Your task to perform on an android device: set default search engine in the chrome app Image 0: 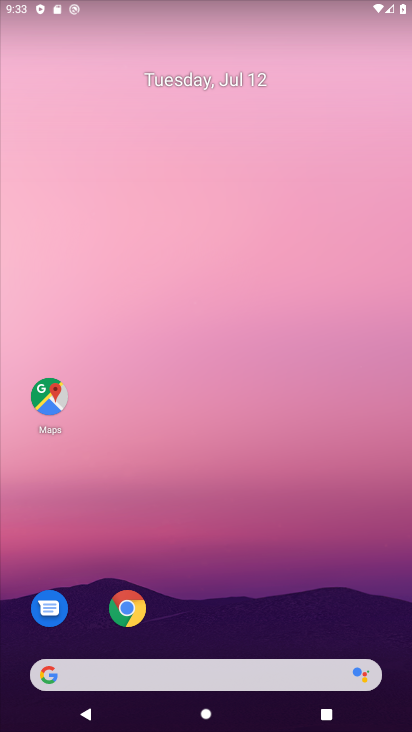
Step 0: click (130, 616)
Your task to perform on an android device: set default search engine in the chrome app Image 1: 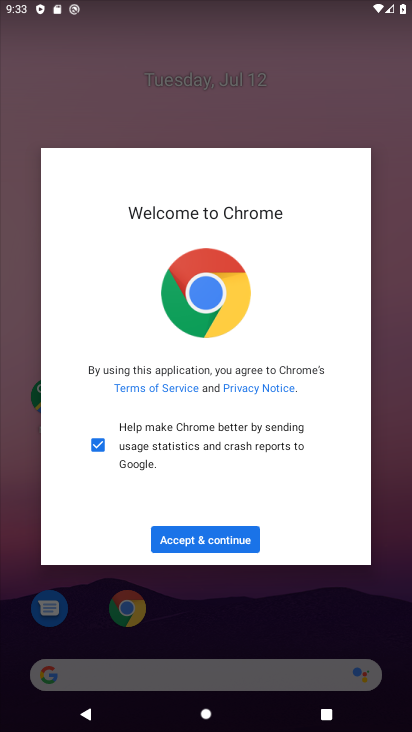
Step 1: click (246, 535)
Your task to perform on an android device: set default search engine in the chrome app Image 2: 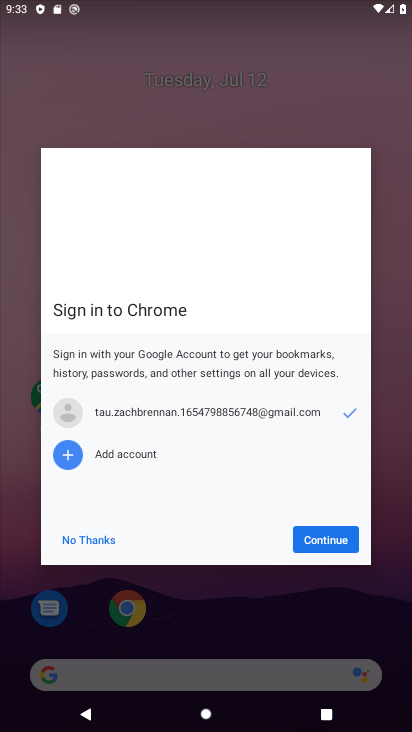
Step 2: click (324, 538)
Your task to perform on an android device: set default search engine in the chrome app Image 3: 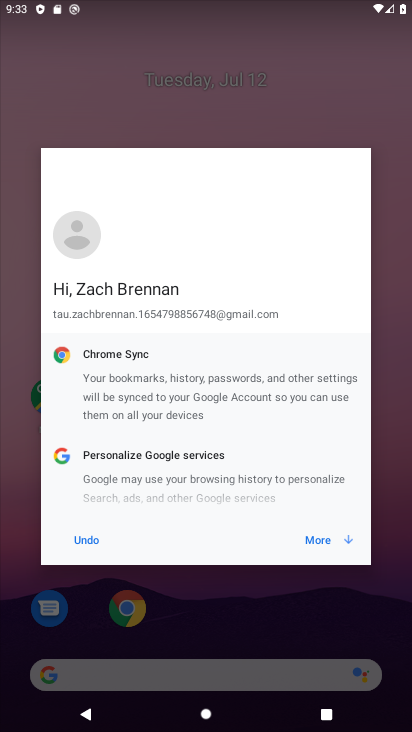
Step 3: click (324, 538)
Your task to perform on an android device: set default search engine in the chrome app Image 4: 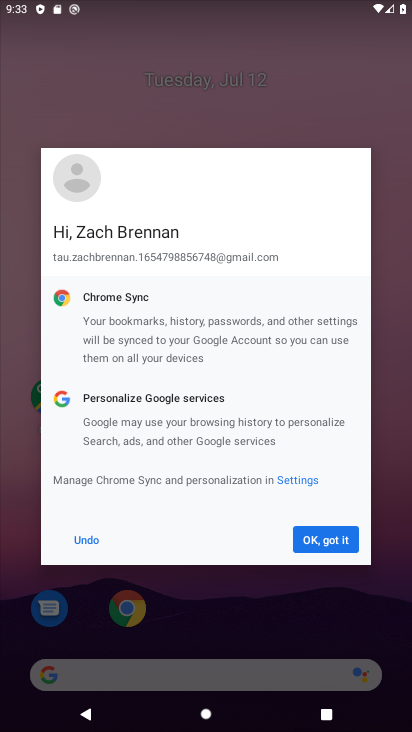
Step 4: click (327, 538)
Your task to perform on an android device: set default search engine in the chrome app Image 5: 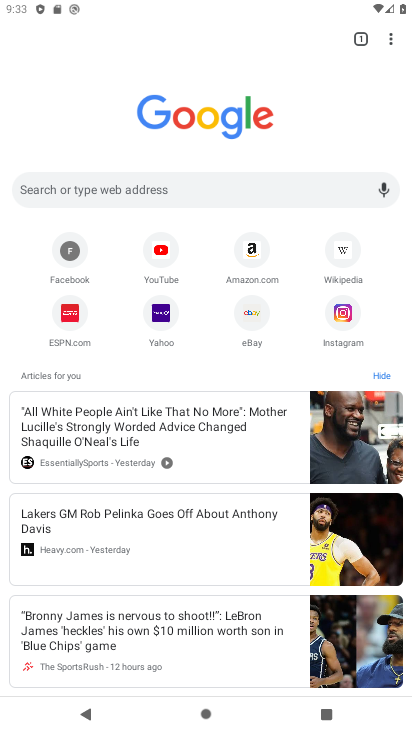
Step 5: click (389, 32)
Your task to perform on an android device: set default search engine in the chrome app Image 6: 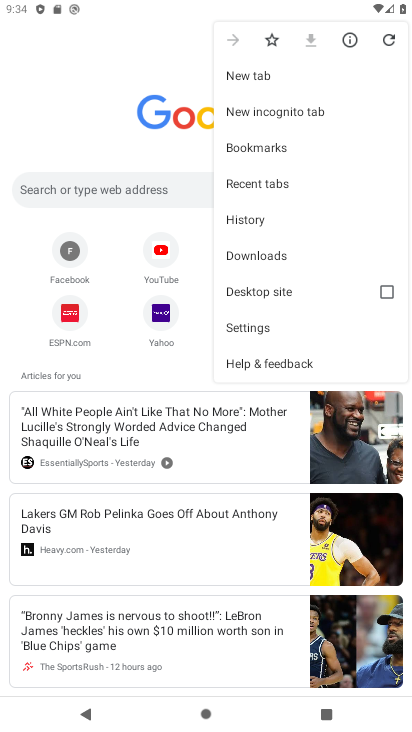
Step 6: click (248, 332)
Your task to perform on an android device: set default search engine in the chrome app Image 7: 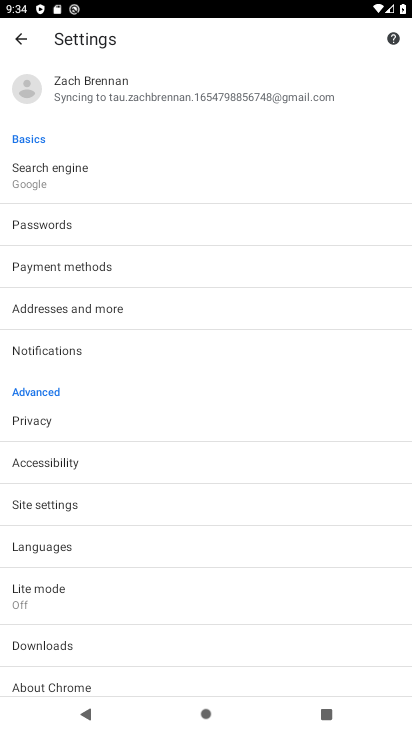
Step 7: click (81, 191)
Your task to perform on an android device: set default search engine in the chrome app Image 8: 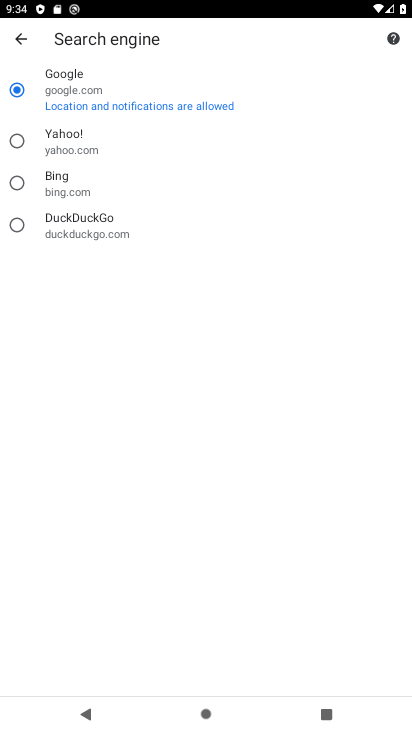
Step 8: click (145, 149)
Your task to perform on an android device: set default search engine in the chrome app Image 9: 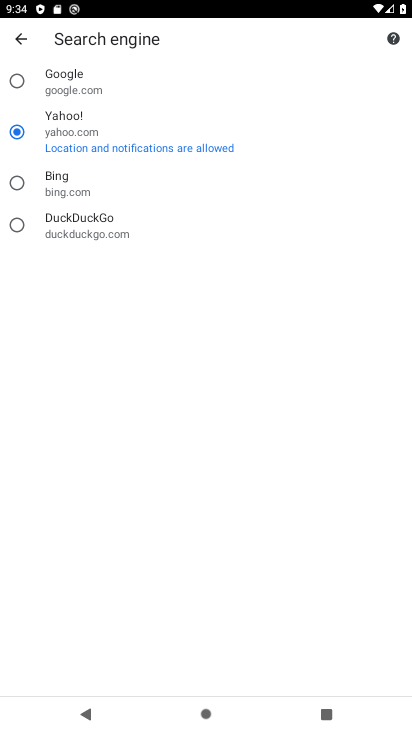
Step 9: task complete